Your task to perform on an android device: turn off wifi Image 0: 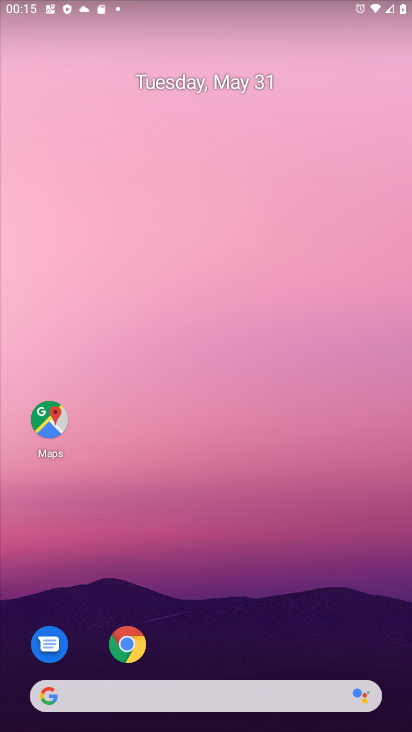
Step 0: click (274, 104)
Your task to perform on an android device: turn off wifi Image 1: 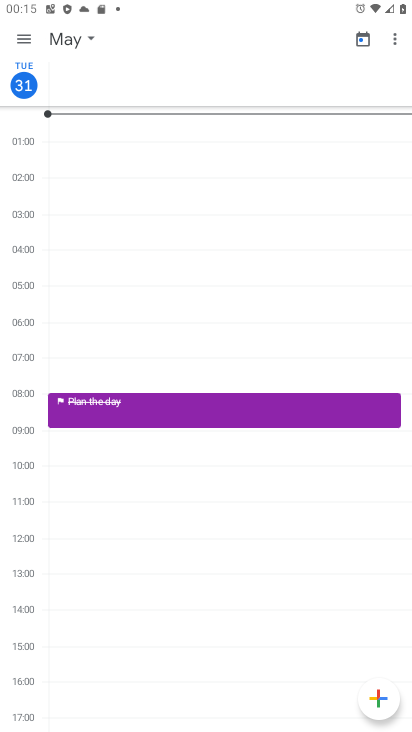
Step 1: press home button
Your task to perform on an android device: turn off wifi Image 2: 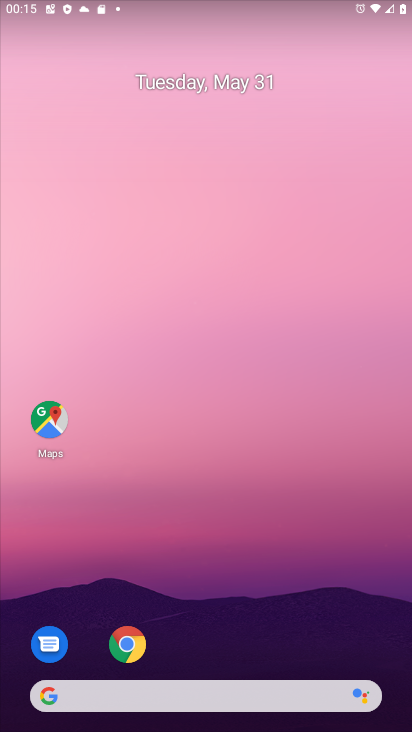
Step 2: drag from (383, 640) to (370, 159)
Your task to perform on an android device: turn off wifi Image 3: 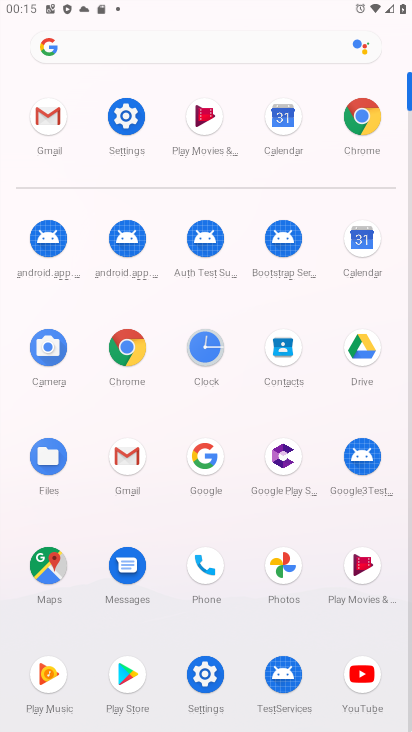
Step 3: click (203, 670)
Your task to perform on an android device: turn off wifi Image 4: 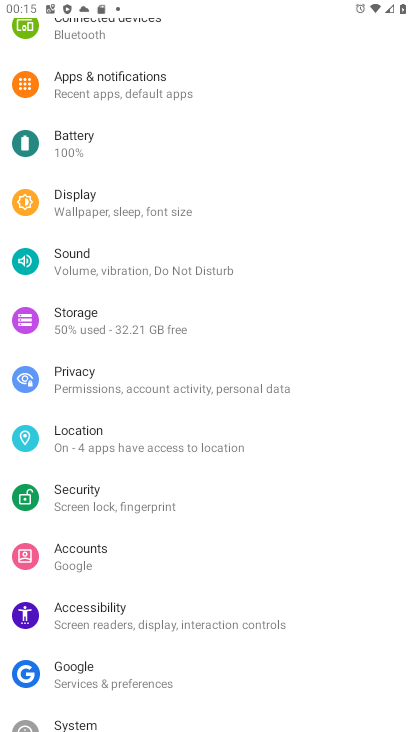
Step 4: drag from (294, 148) to (294, 431)
Your task to perform on an android device: turn off wifi Image 5: 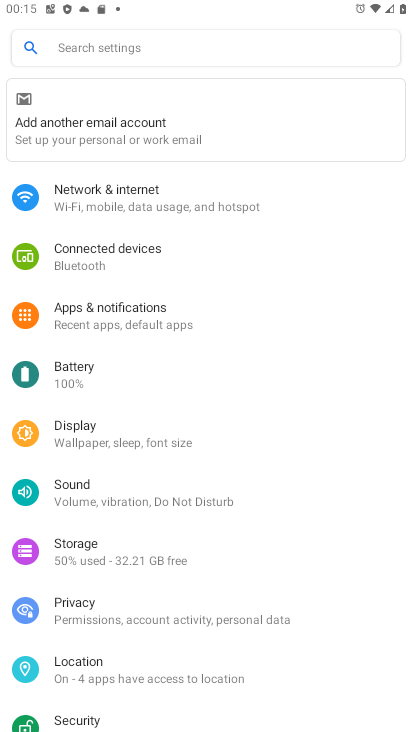
Step 5: click (75, 188)
Your task to perform on an android device: turn off wifi Image 6: 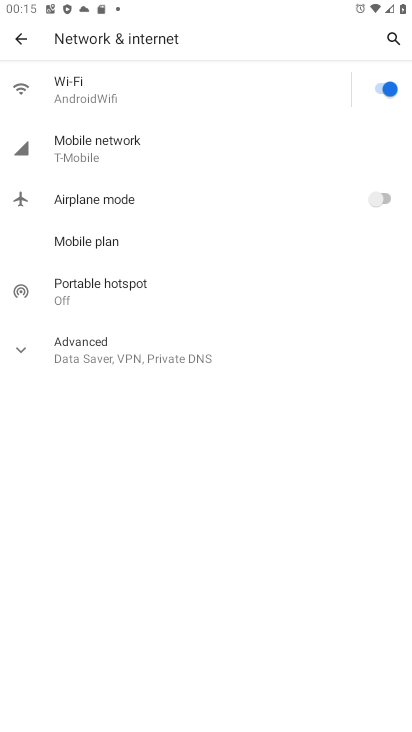
Step 6: click (378, 90)
Your task to perform on an android device: turn off wifi Image 7: 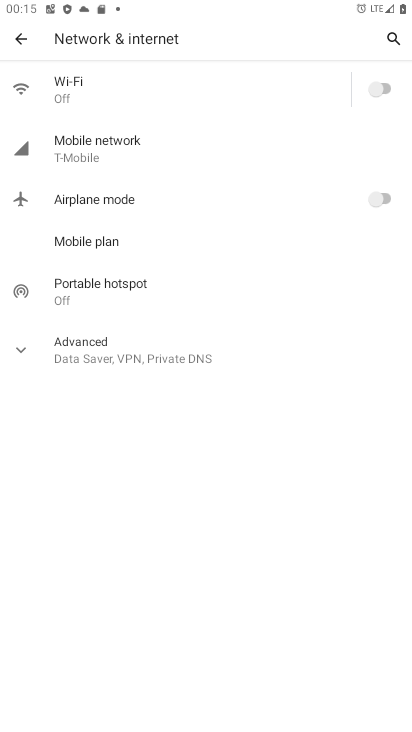
Step 7: task complete